Your task to perform on an android device: Go to wifi settings Image 0: 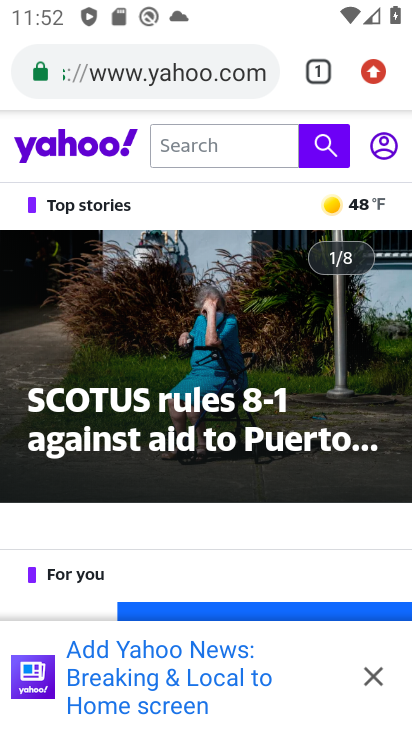
Step 0: press home button
Your task to perform on an android device: Go to wifi settings Image 1: 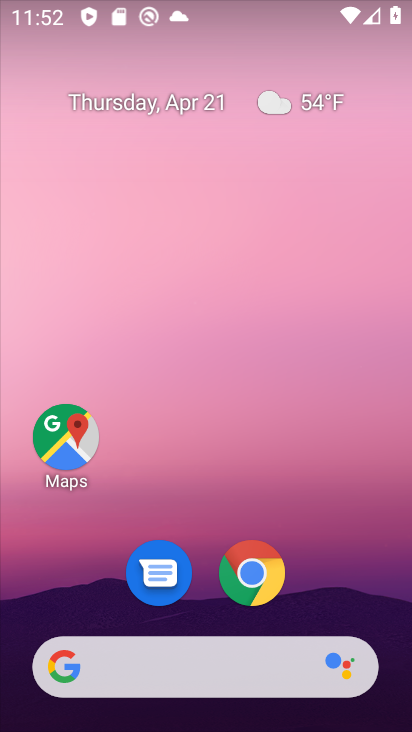
Step 1: drag from (389, 588) to (373, 137)
Your task to perform on an android device: Go to wifi settings Image 2: 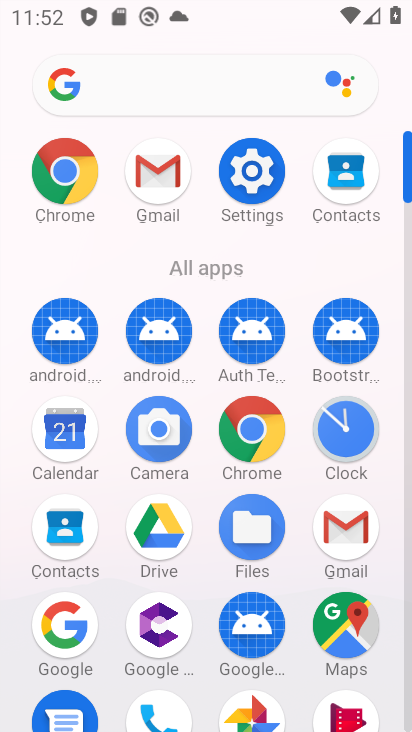
Step 2: click (250, 178)
Your task to perform on an android device: Go to wifi settings Image 3: 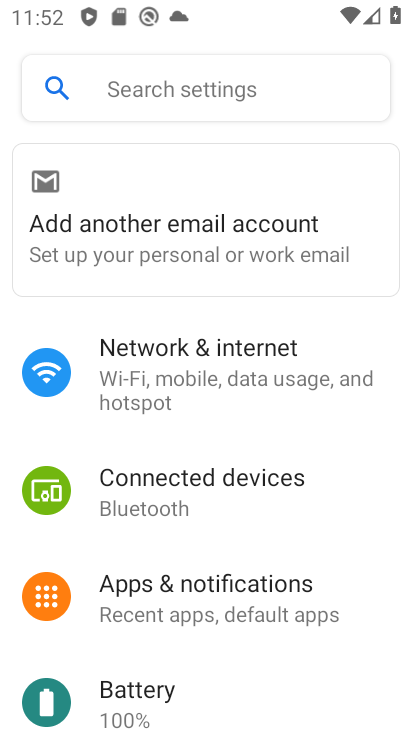
Step 3: click (216, 377)
Your task to perform on an android device: Go to wifi settings Image 4: 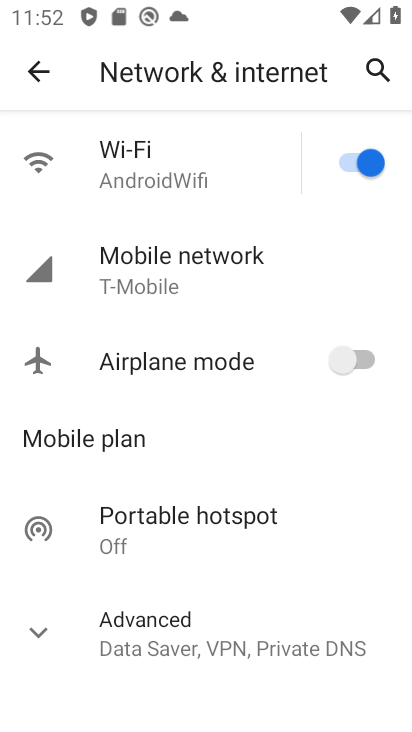
Step 4: click (207, 179)
Your task to perform on an android device: Go to wifi settings Image 5: 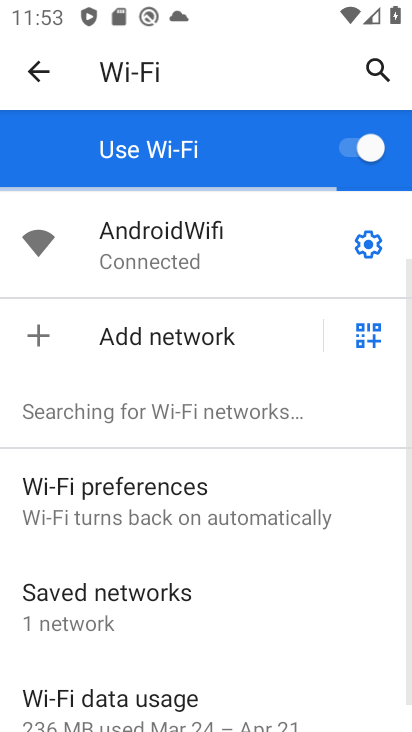
Step 5: click (381, 249)
Your task to perform on an android device: Go to wifi settings Image 6: 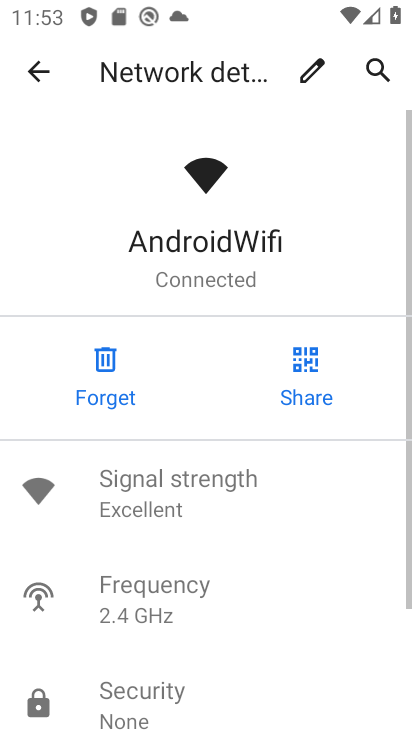
Step 6: task complete